Your task to perform on an android device: change notification settings in the gmail app Image 0: 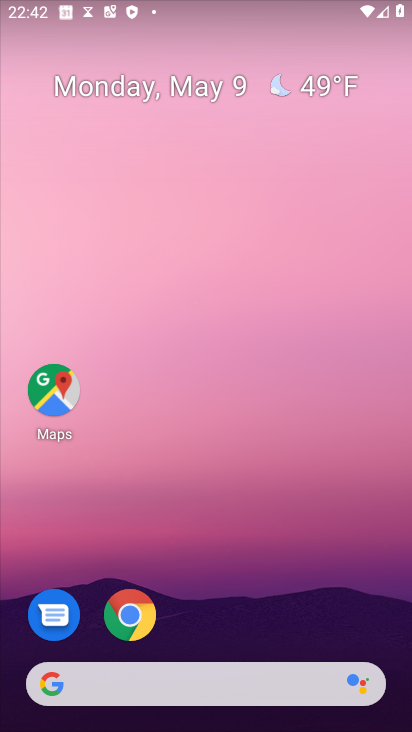
Step 0: drag from (207, 595) to (288, 223)
Your task to perform on an android device: change notification settings in the gmail app Image 1: 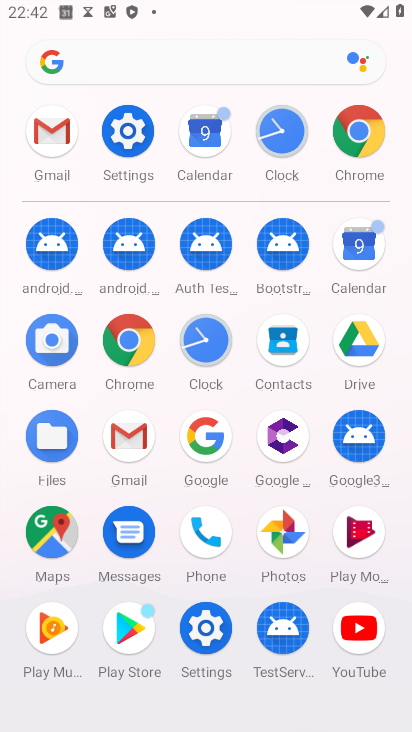
Step 1: click (126, 442)
Your task to perform on an android device: change notification settings in the gmail app Image 2: 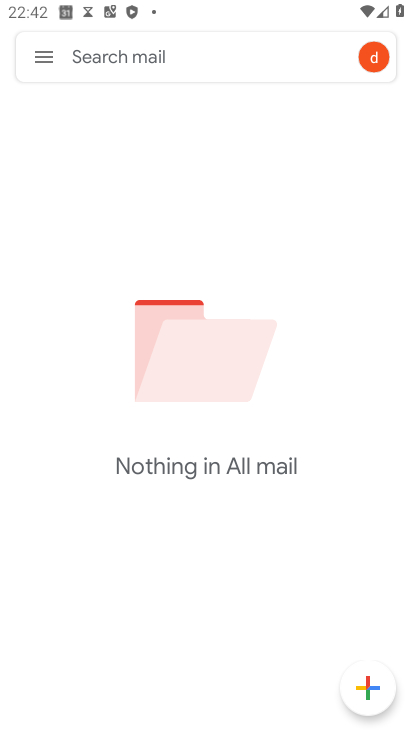
Step 2: click (37, 62)
Your task to perform on an android device: change notification settings in the gmail app Image 3: 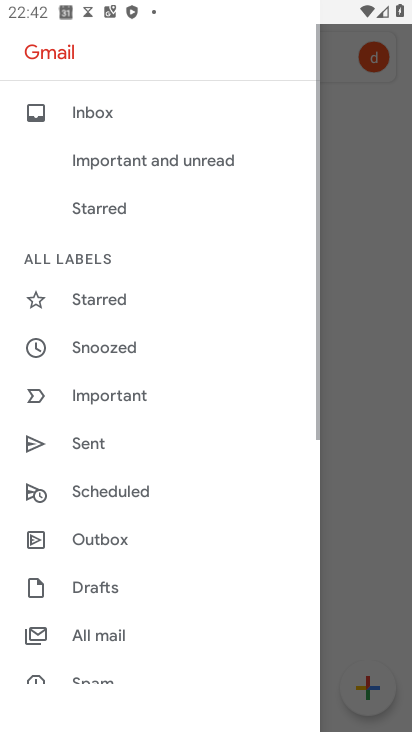
Step 3: drag from (121, 644) to (147, 332)
Your task to perform on an android device: change notification settings in the gmail app Image 4: 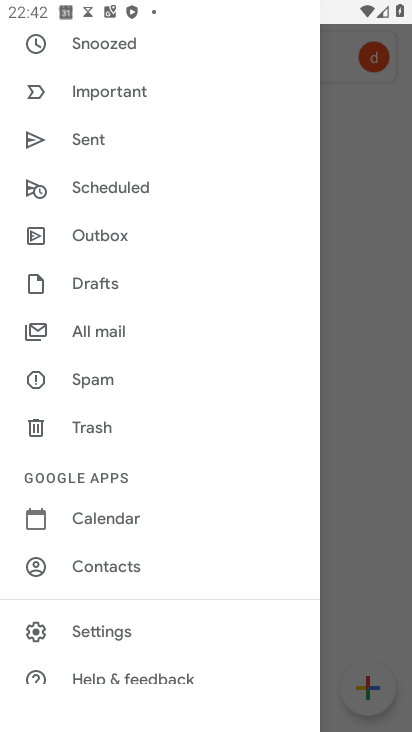
Step 4: click (114, 635)
Your task to perform on an android device: change notification settings in the gmail app Image 5: 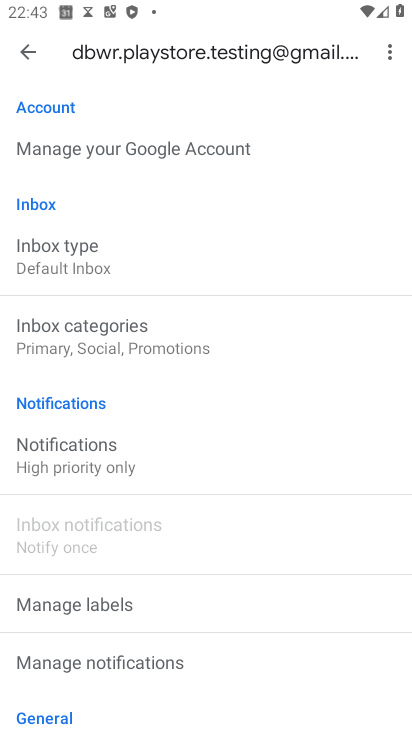
Step 5: click (61, 447)
Your task to perform on an android device: change notification settings in the gmail app Image 6: 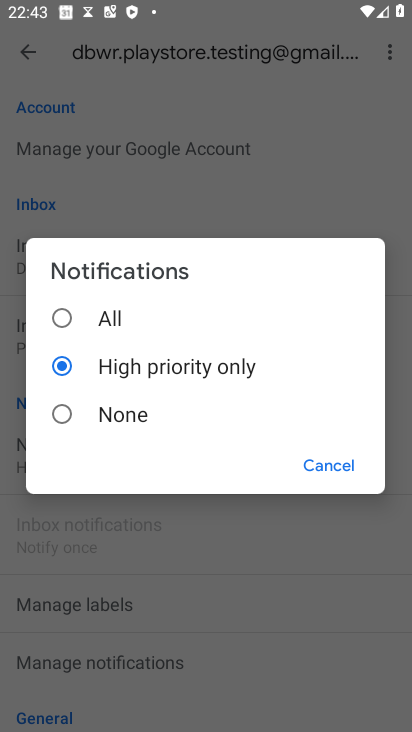
Step 6: click (106, 323)
Your task to perform on an android device: change notification settings in the gmail app Image 7: 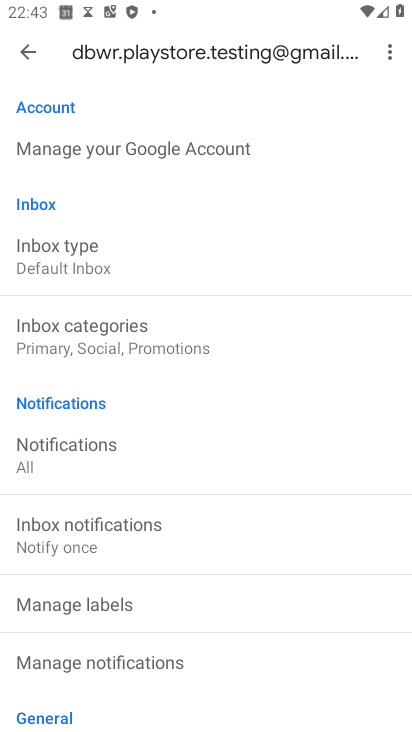
Step 7: task complete